Your task to perform on an android device: read, delete, or share a saved page in the chrome app Image 0: 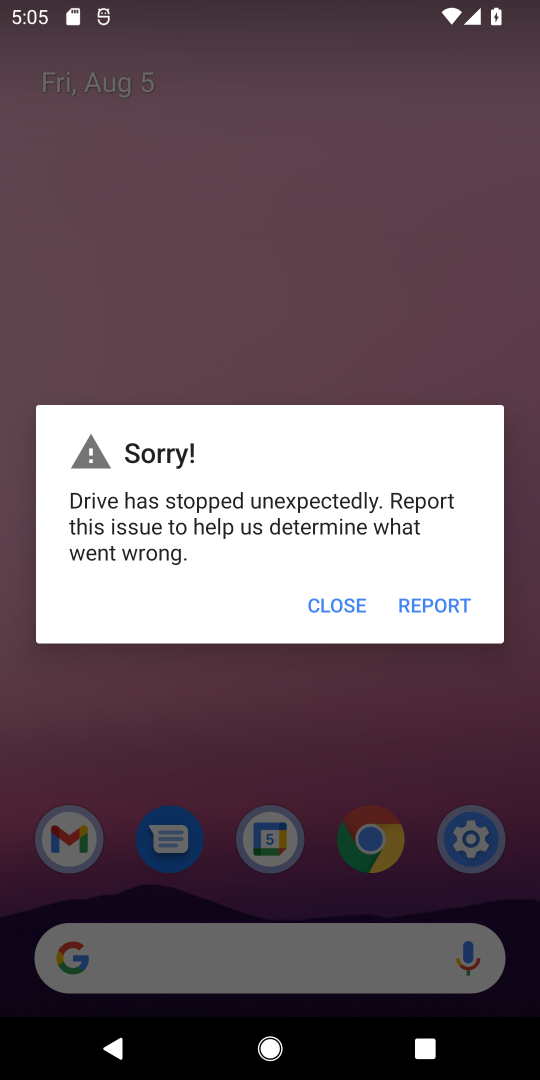
Step 0: click (343, 610)
Your task to perform on an android device: read, delete, or share a saved page in the chrome app Image 1: 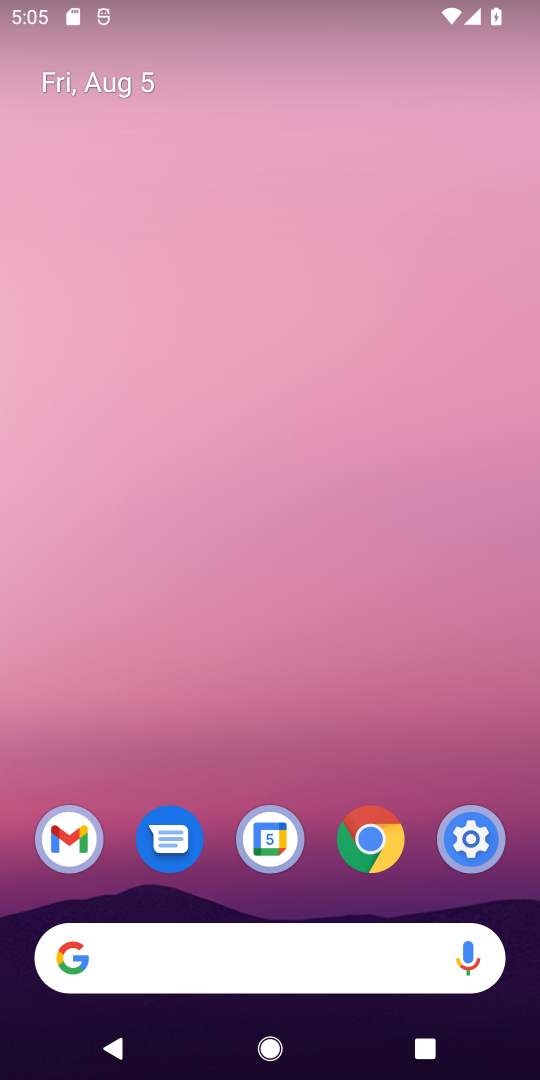
Step 1: click (358, 832)
Your task to perform on an android device: read, delete, or share a saved page in the chrome app Image 2: 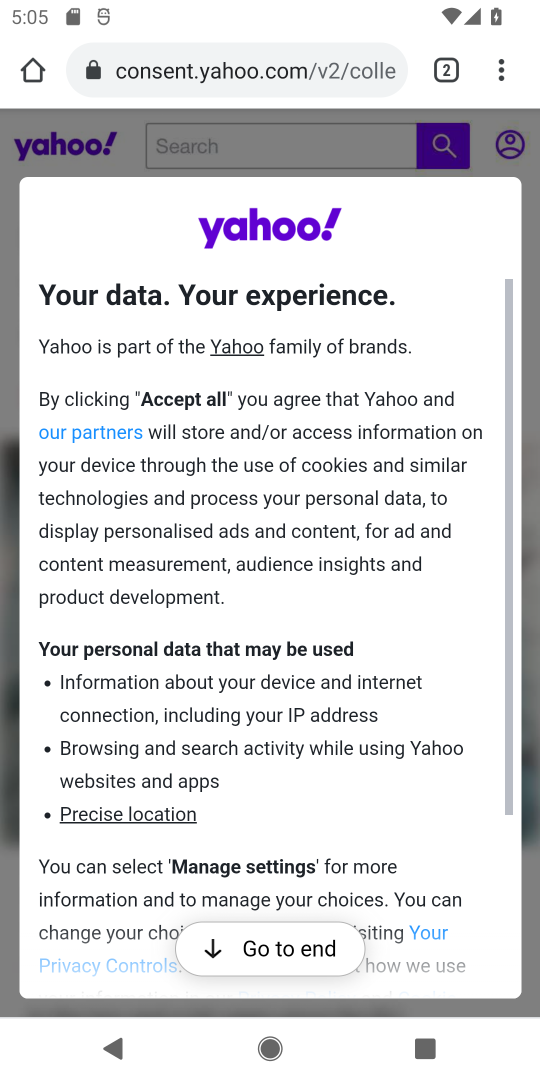
Step 2: click (489, 73)
Your task to perform on an android device: read, delete, or share a saved page in the chrome app Image 3: 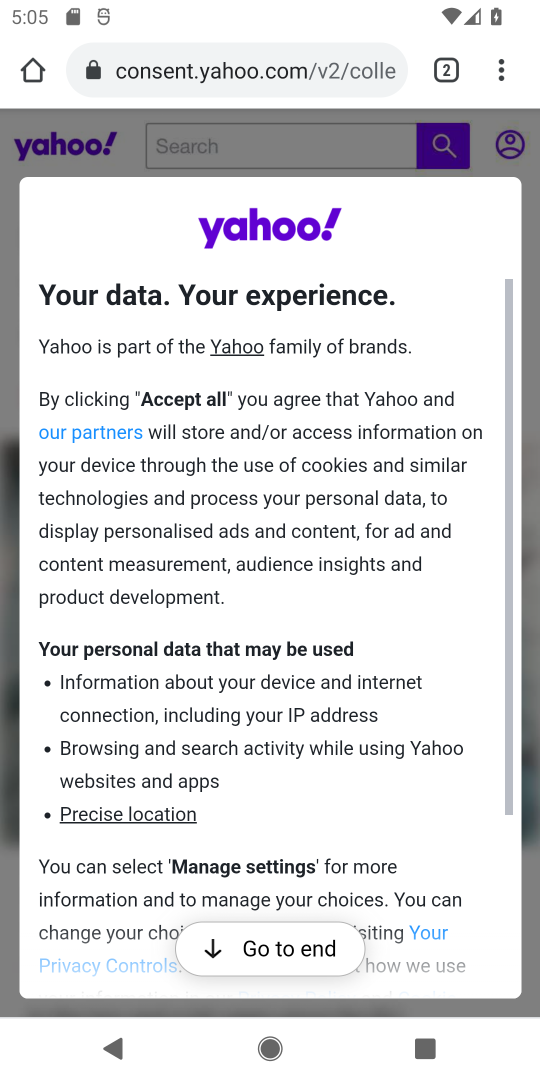
Step 3: click (498, 81)
Your task to perform on an android device: read, delete, or share a saved page in the chrome app Image 4: 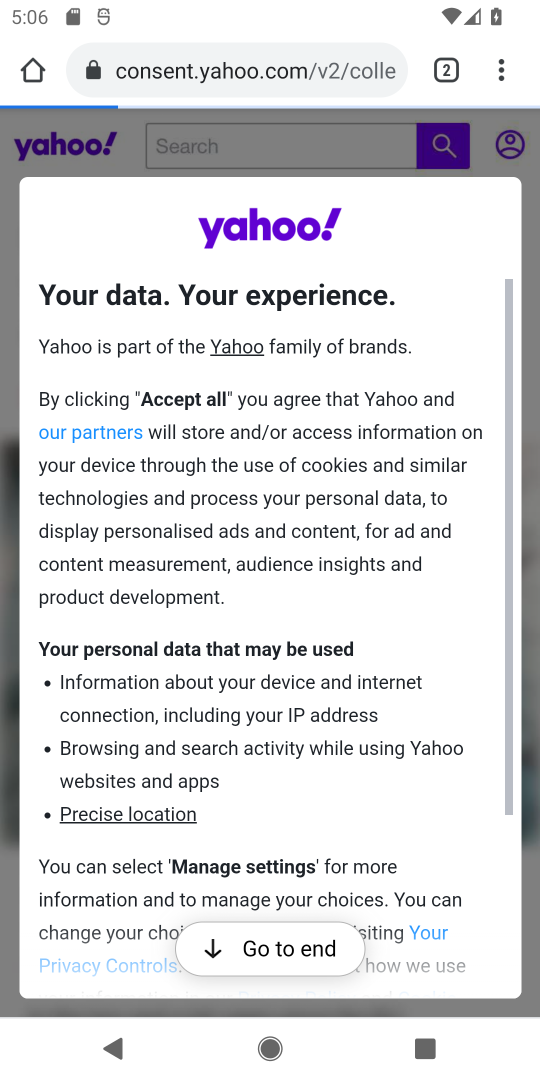
Step 4: click (498, 81)
Your task to perform on an android device: read, delete, or share a saved page in the chrome app Image 5: 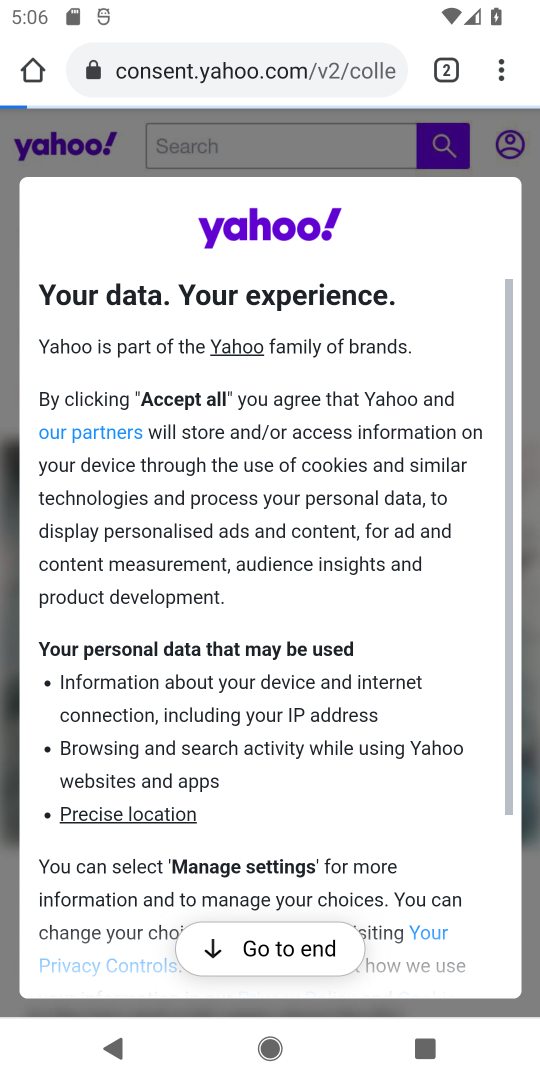
Step 5: task complete